Your task to perform on an android device: turn on improve location accuracy Image 0: 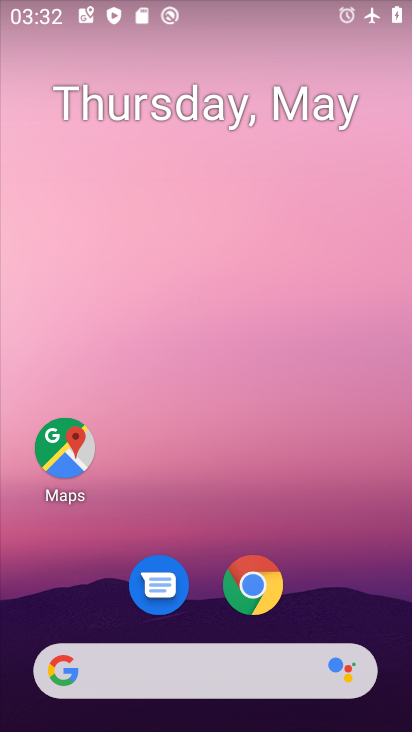
Step 0: drag from (211, 520) to (190, 52)
Your task to perform on an android device: turn on improve location accuracy Image 1: 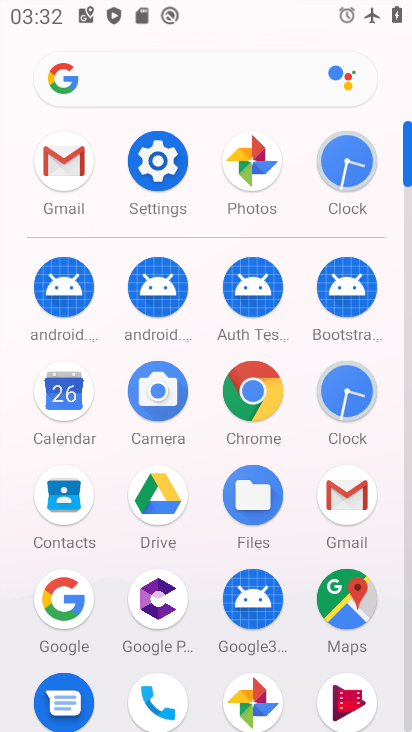
Step 1: click (152, 165)
Your task to perform on an android device: turn on improve location accuracy Image 2: 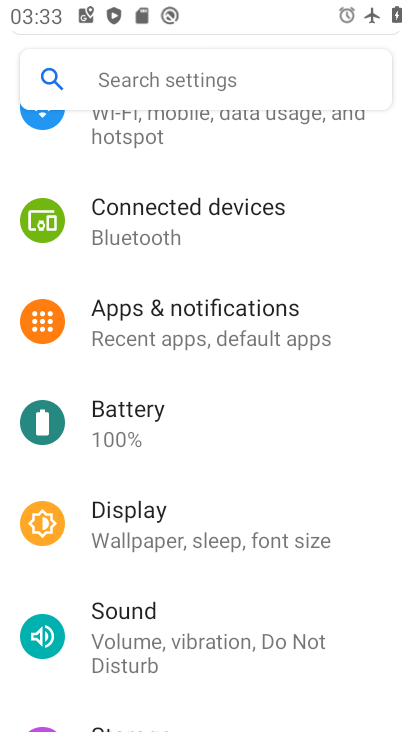
Step 2: drag from (259, 622) to (218, 298)
Your task to perform on an android device: turn on improve location accuracy Image 3: 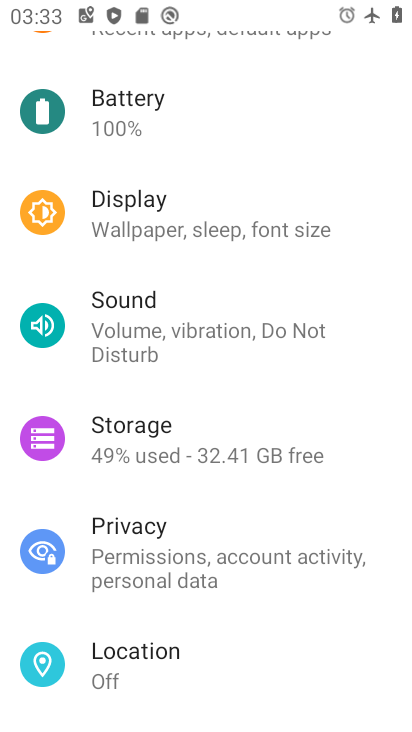
Step 3: click (179, 662)
Your task to perform on an android device: turn on improve location accuracy Image 4: 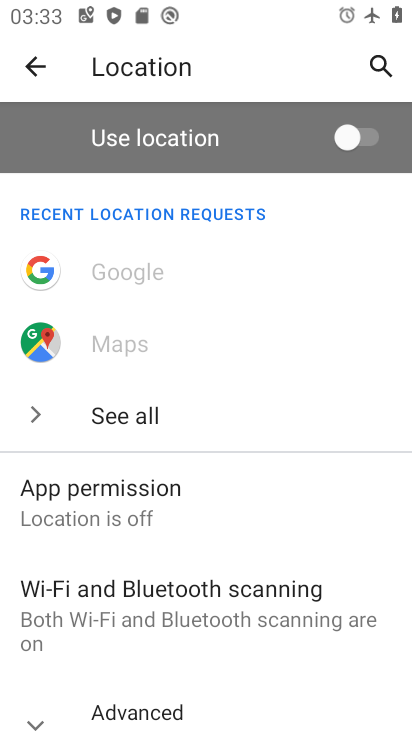
Step 4: drag from (205, 502) to (210, 225)
Your task to perform on an android device: turn on improve location accuracy Image 5: 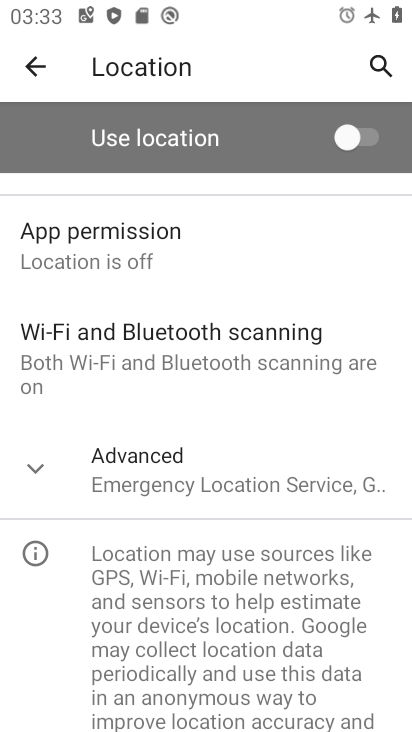
Step 5: click (31, 459)
Your task to perform on an android device: turn on improve location accuracy Image 6: 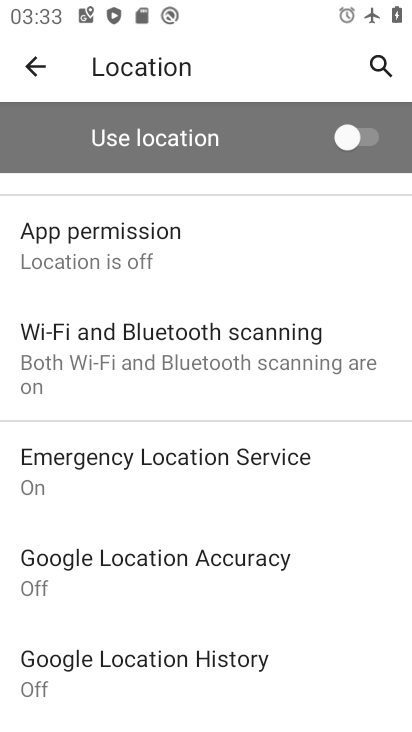
Step 6: click (215, 560)
Your task to perform on an android device: turn on improve location accuracy Image 7: 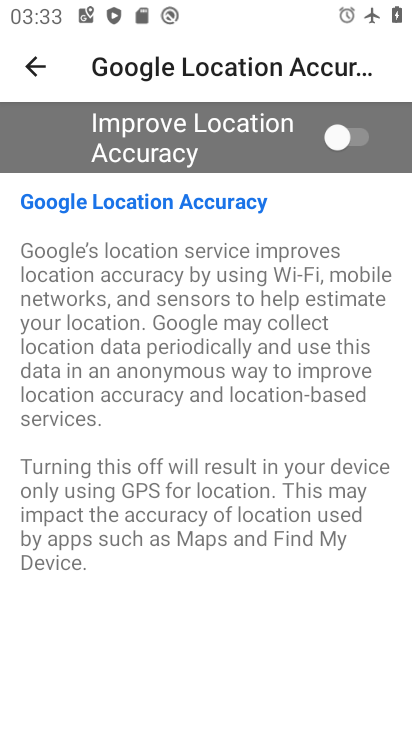
Step 7: click (344, 131)
Your task to perform on an android device: turn on improve location accuracy Image 8: 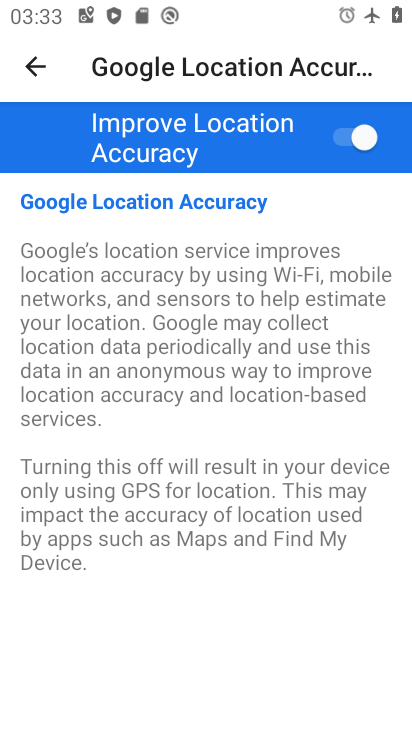
Step 8: task complete